Your task to perform on an android device: Search for pizza restaurants on Maps Image 0: 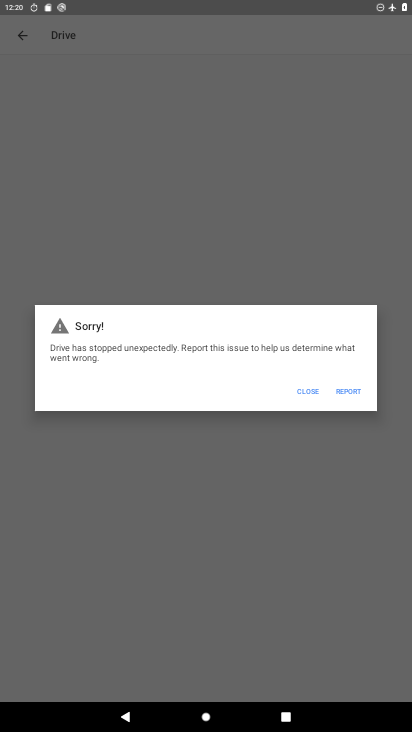
Step 0: drag from (352, 606) to (263, 107)
Your task to perform on an android device: Search for pizza restaurants on Maps Image 1: 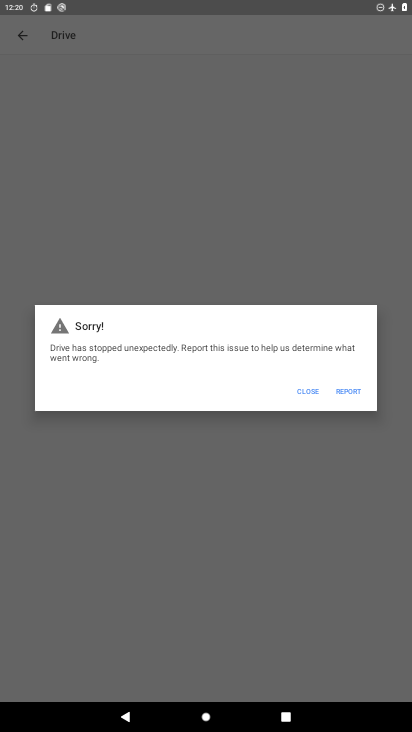
Step 1: press home button
Your task to perform on an android device: Search for pizza restaurants on Maps Image 2: 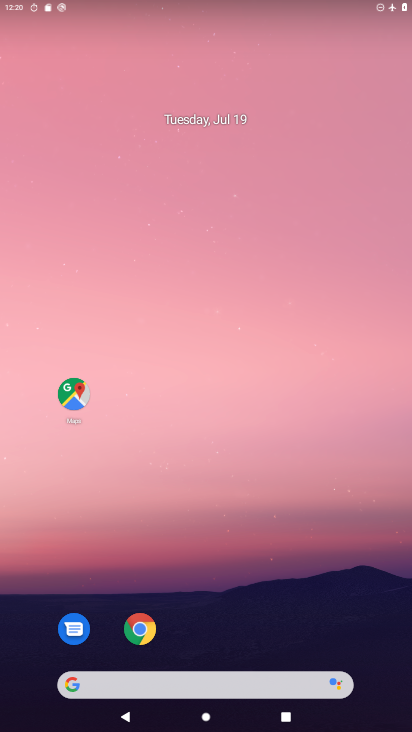
Step 2: drag from (306, 621) to (241, 47)
Your task to perform on an android device: Search for pizza restaurants on Maps Image 3: 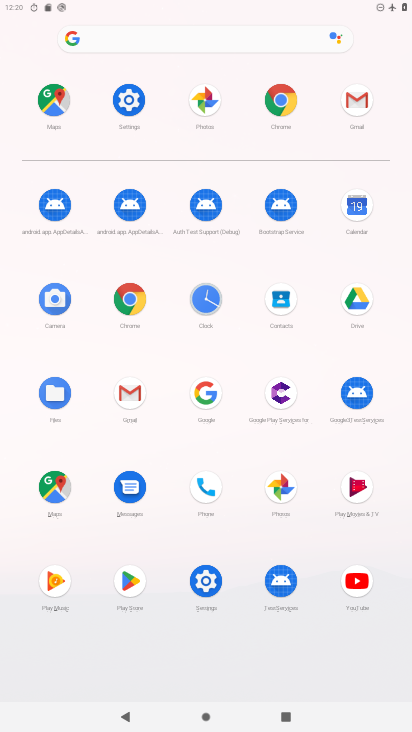
Step 3: click (60, 484)
Your task to perform on an android device: Search for pizza restaurants on Maps Image 4: 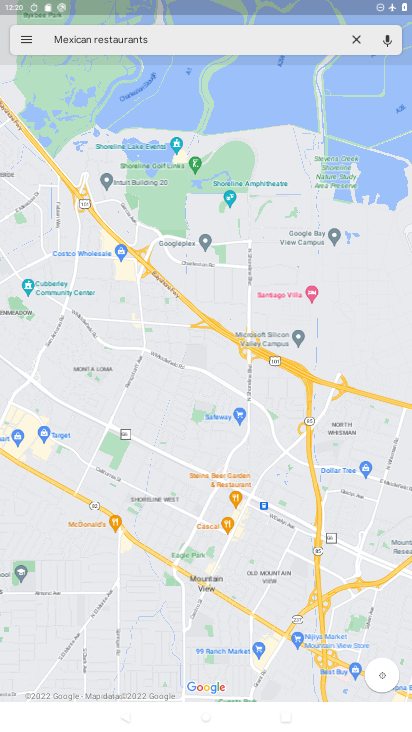
Step 4: click (102, 47)
Your task to perform on an android device: Search for pizza restaurants on Maps Image 5: 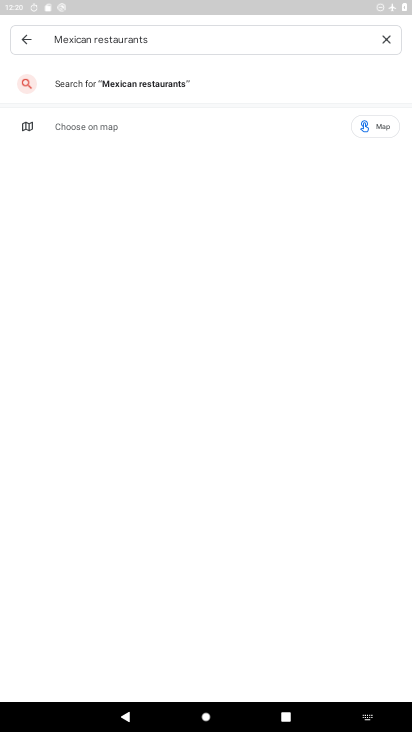
Step 5: click (381, 36)
Your task to perform on an android device: Search for pizza restaurants on Maps Image 6: 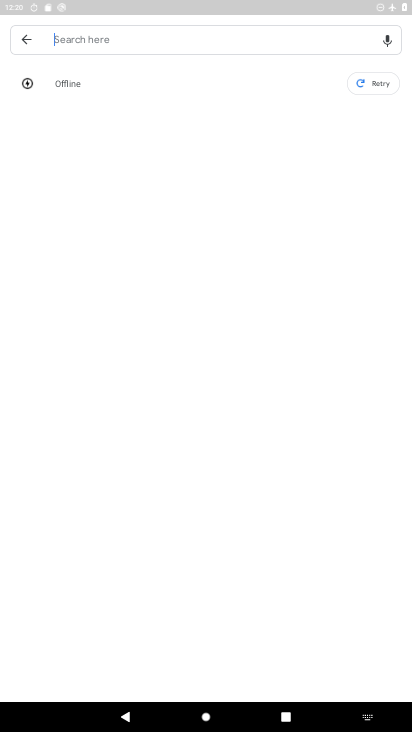
Step 6: type "pizza restaurants"
Your task to perform on an android device: Search for pizza restaurants on Maps Image 7: 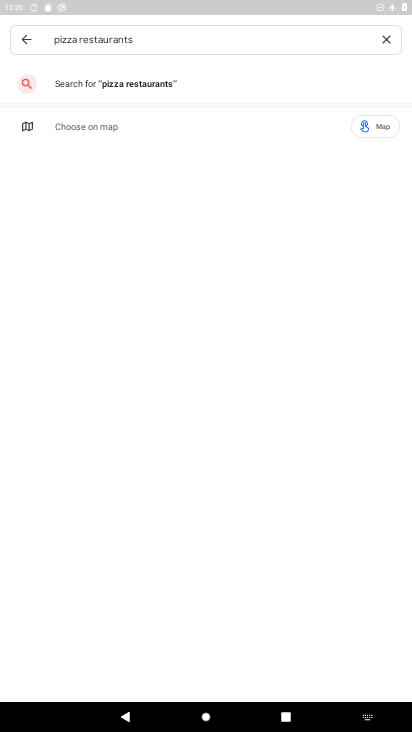
Step 7: click (138, 78)
Your task to perform on an android device: Search for pizza restaurants on Maps Image 8: 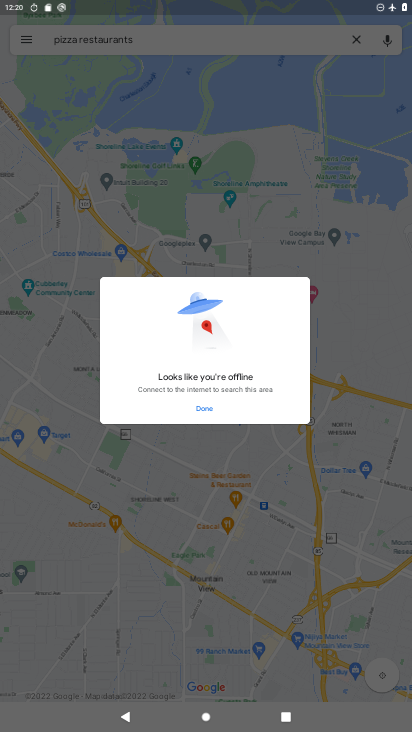
Step 8: task complete